Your task to perform on an android device: turn off airplane mode Image 0: 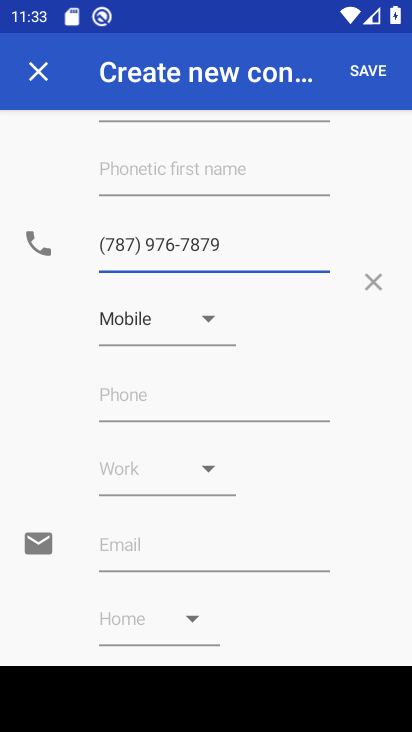
Step 0: press home button
Your task to perform on an android device: turn off airplane mode Image 1: 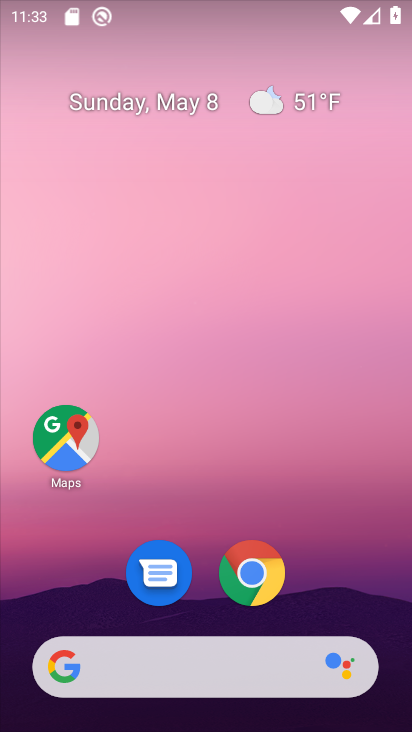
Step 1: drag from (223, 632) to (223, 228)
Your task to perform on an android device: turn off airplane mode Image 2: 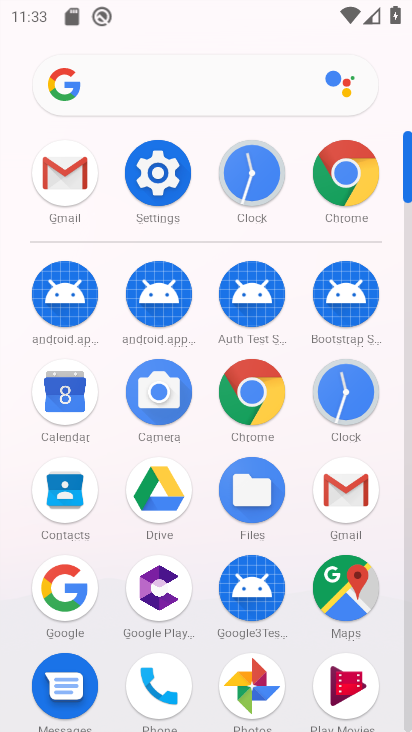
Step 2: click (167, 177)
Your task to perform on an android device: turn off airplane mode Image 3: 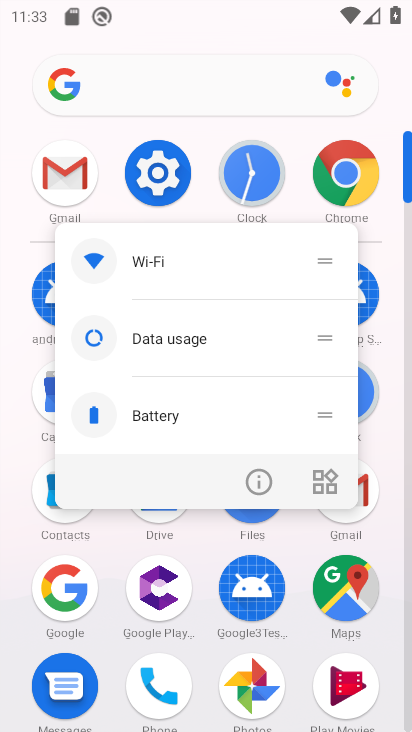
Step 3: click (167, 177)
Your task to perform on an android device: turn off airplane mode Image 4: 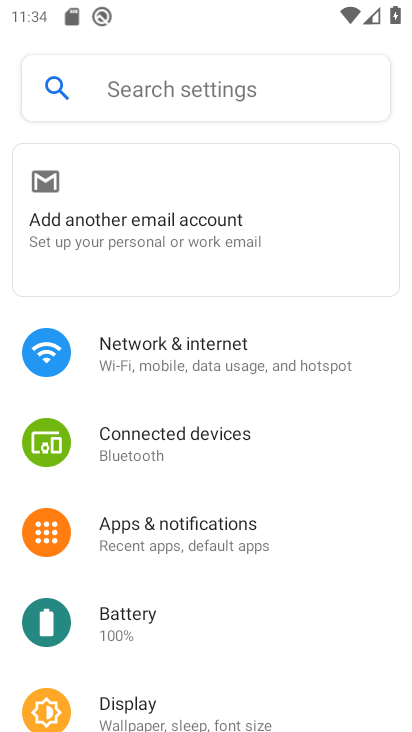
Step 4: click (175, 370)
Your task to perform on an android device: turn off airplane mode Image 5: 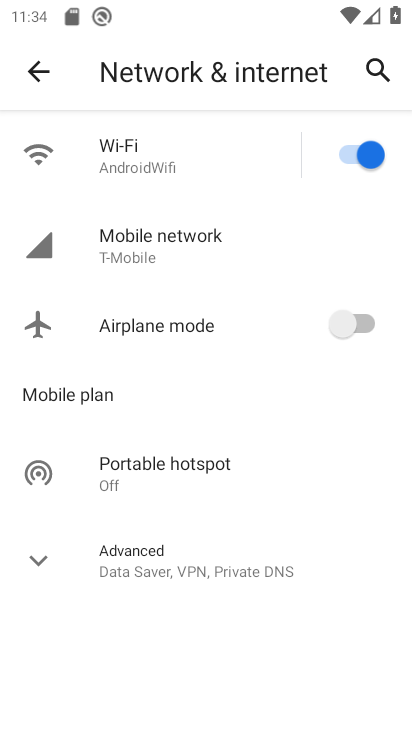
Step 5: task complete